Your task to perform on an android device: Do I have any events this weekend? Image 0: 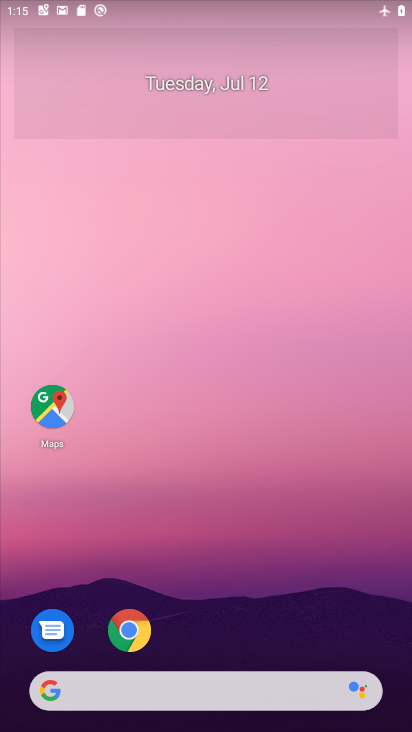
Step 0: drag from (190, 608) to (222, 191)
Your task to perform on an android device: Do I have any events this weekend? Image 1: 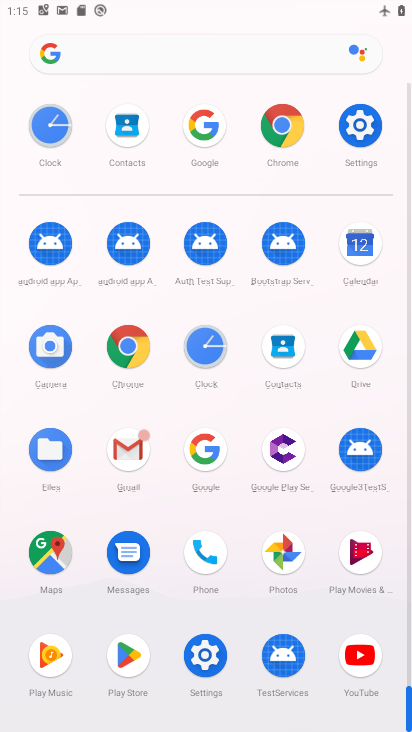
Step 1: click (366, 260)
Your task to perform on an android device: Do I have any events this weekend? Image 2: 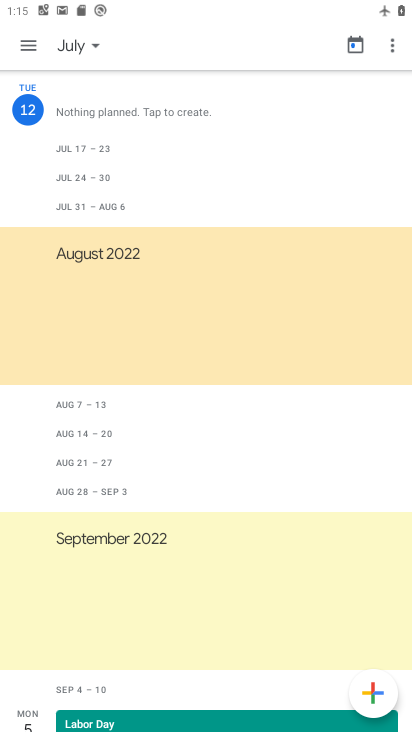
Step 2: click (83, 55)
Your task to perform on an android device: Do I have any events this weekend? Image 3: 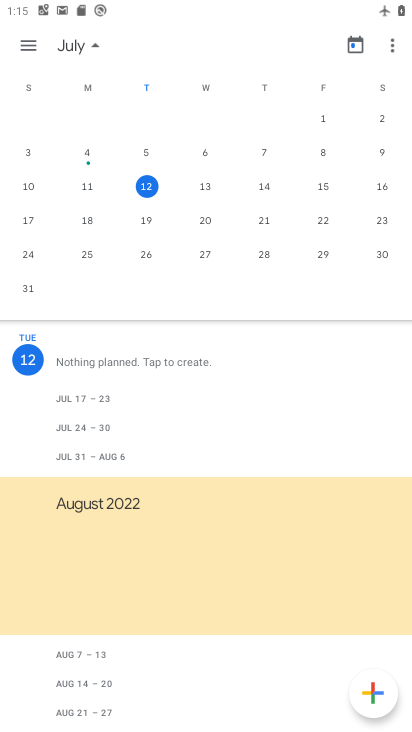
Step 3: click (382, 193)
Your task to perform on an android device: Do I have any events this weekend? Image 4: 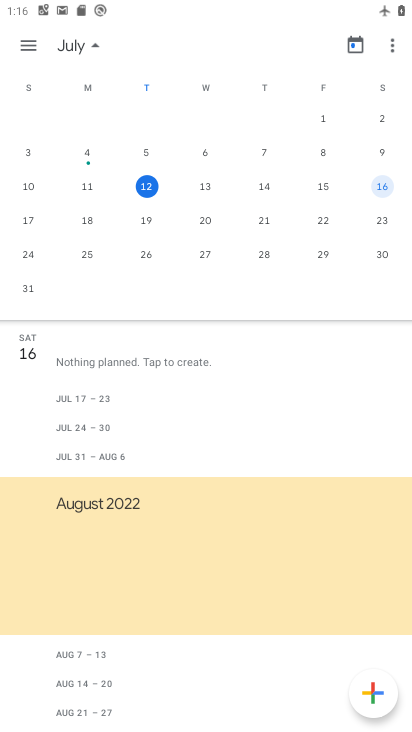
Step 4: task complete